Your task to perform on an android device: open chrome privacy settings Image 0: 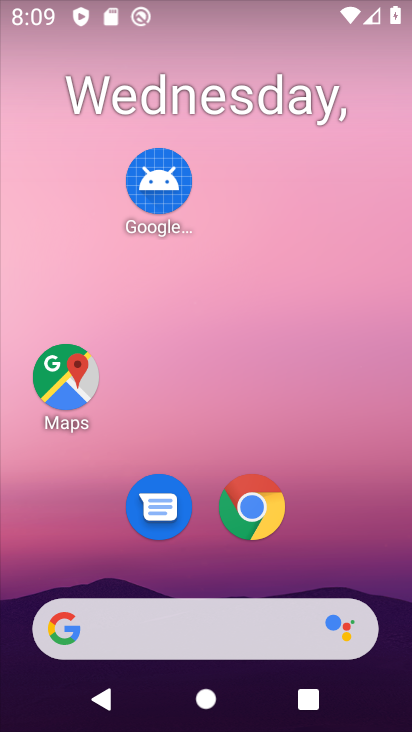
Step 0: drag from (229, 592) to (407, 652)
Your task to perform on an android device: open chrome privacy settings Image 1: 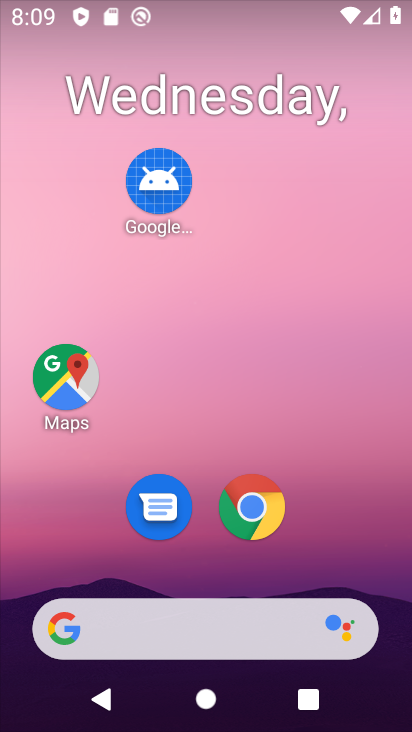
Step 1: click (266, 456)
Your task to perform on an android device: open chrome privacy settings Image 2: 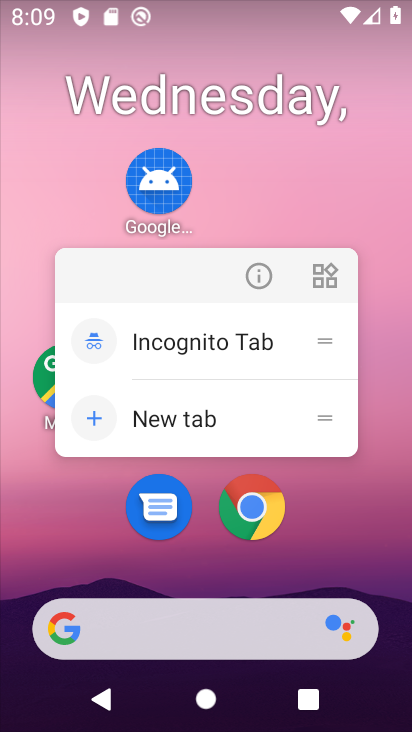
Step 2: click (263, 497)
Your task to perform on an android device: open chrome privacy settings Image 3: 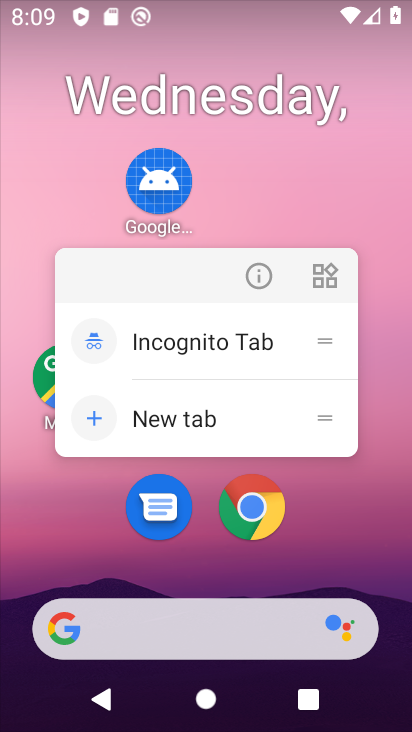
Step 3: click (252, 512)
Your task to perform on an android device: open chrome privacy settings Image 4: 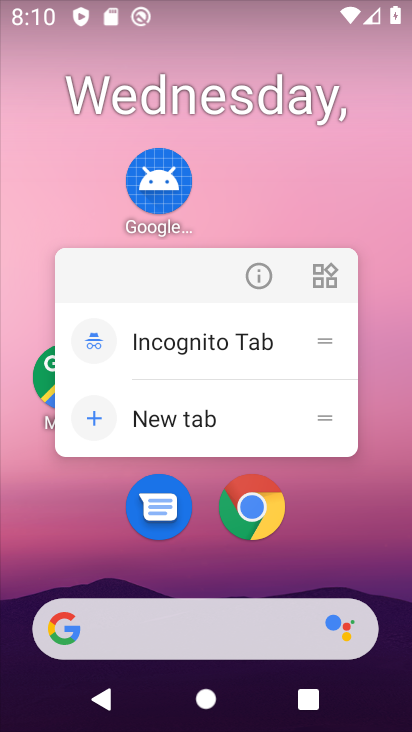
Step 4: click (252, 512)
Your task to perform on an android device: open chrome privacy settings Image 5: 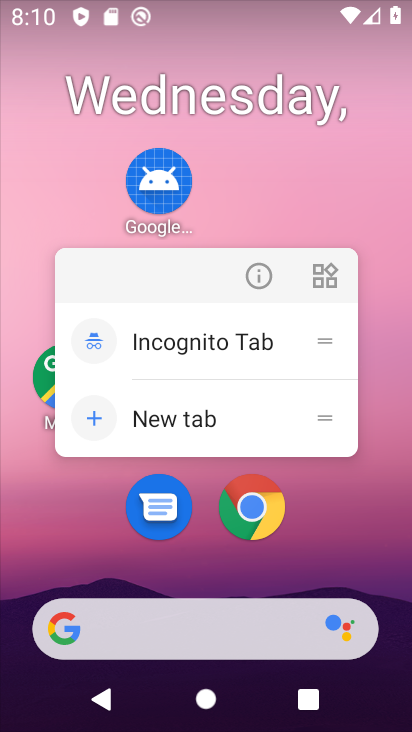
Step 5: click (252, 512)
Your task to perform on an android device: open chrome privacy settings Image 6: 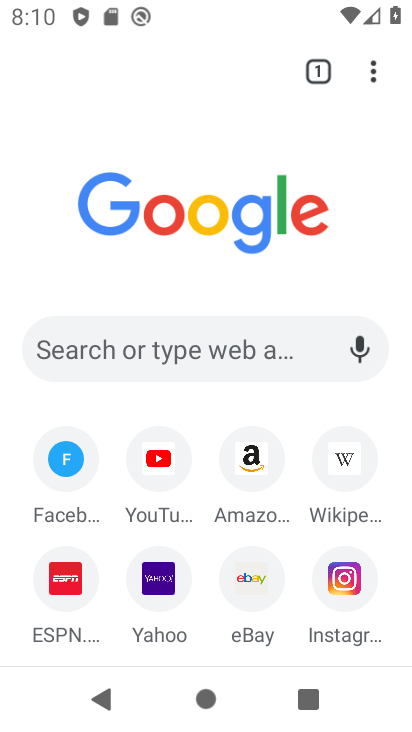
Step 6: drag from (356, 63) to (170, 522)
Your task to perform on an android device: open chrome privacy settings Image 7: 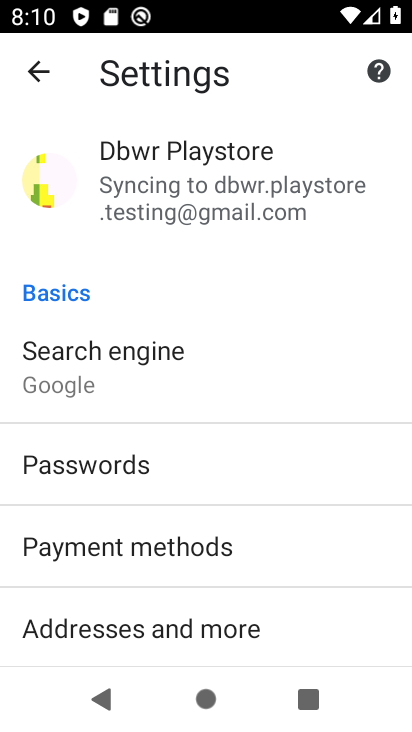
Step 7: drag from (167, 513) to (221, 6)
Your task to perform on an android device: open chrome privacy settings Image 8: 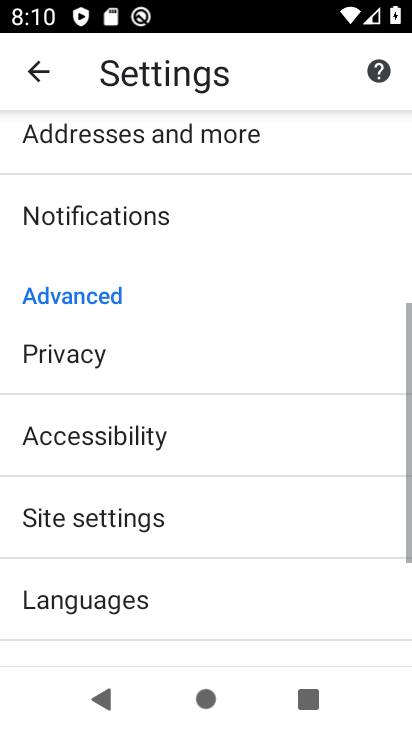
Step 8: click (85, 342)
Your task to perform on an android device: open chrome privacy settings Image 9: 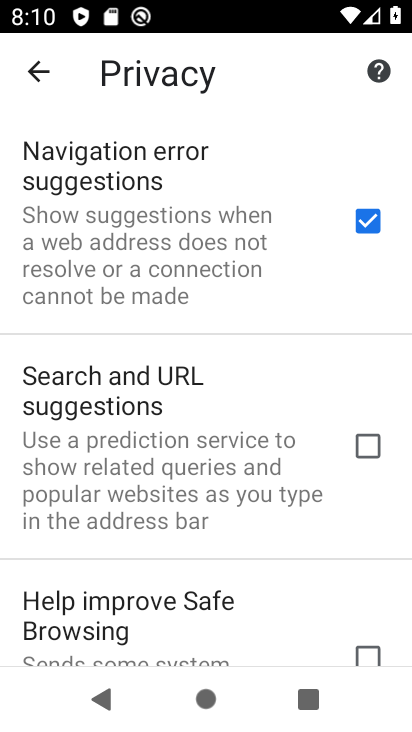
Step 9: task complete